Your task to perform on an android device: Go to Google maps Image 0: 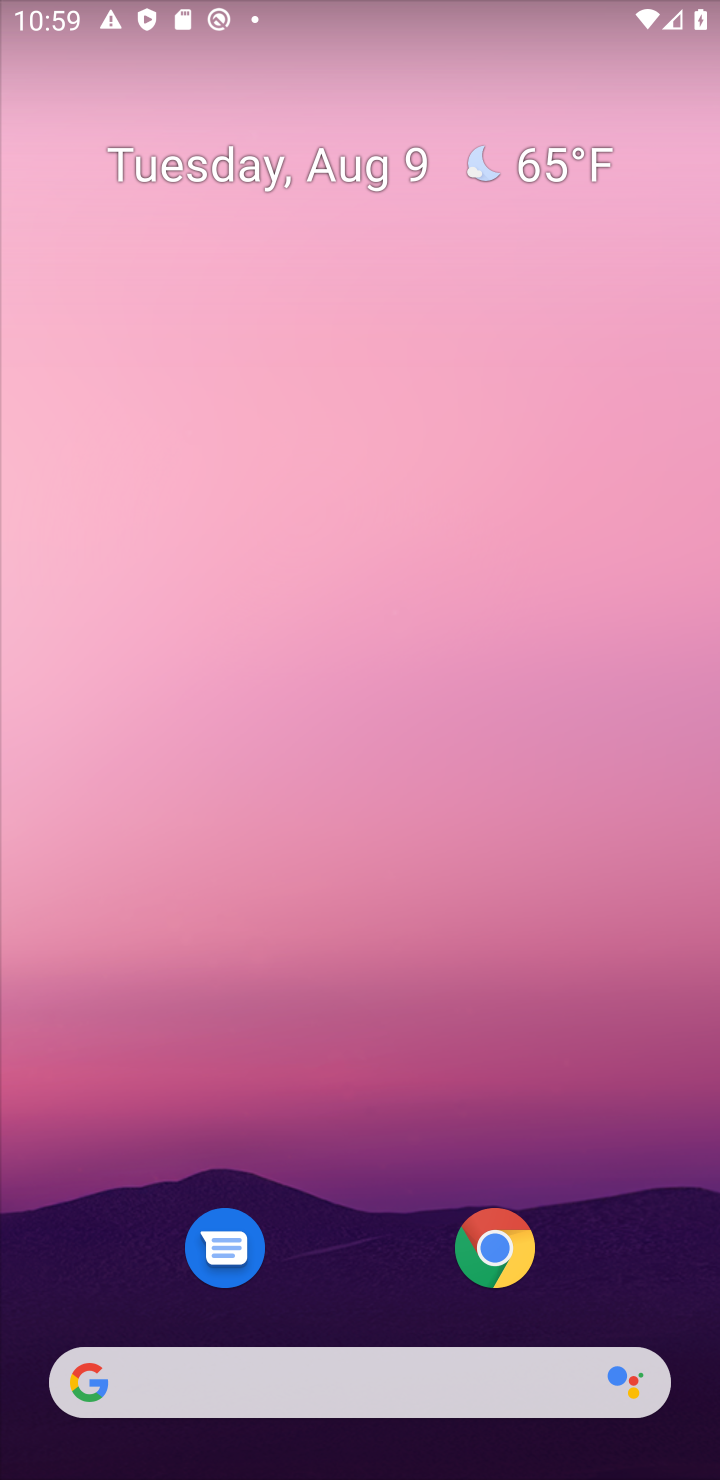
Step 0: drag from (450, 916) to (391, 83)
Your task to perform on an android device: Go to Google maps Image 1: 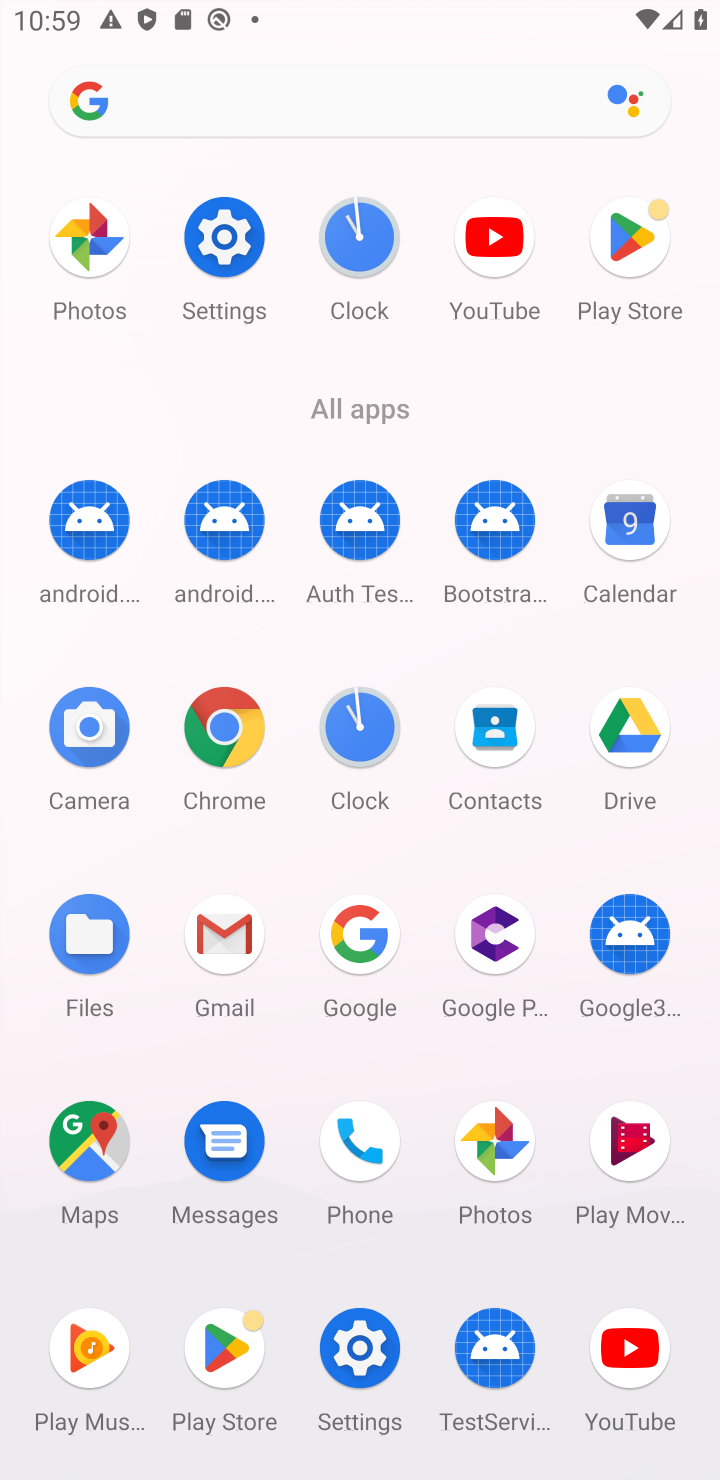
Step 1: click (91, 1141)
Your task to perform on an android device: Go to Google maps Image 2: 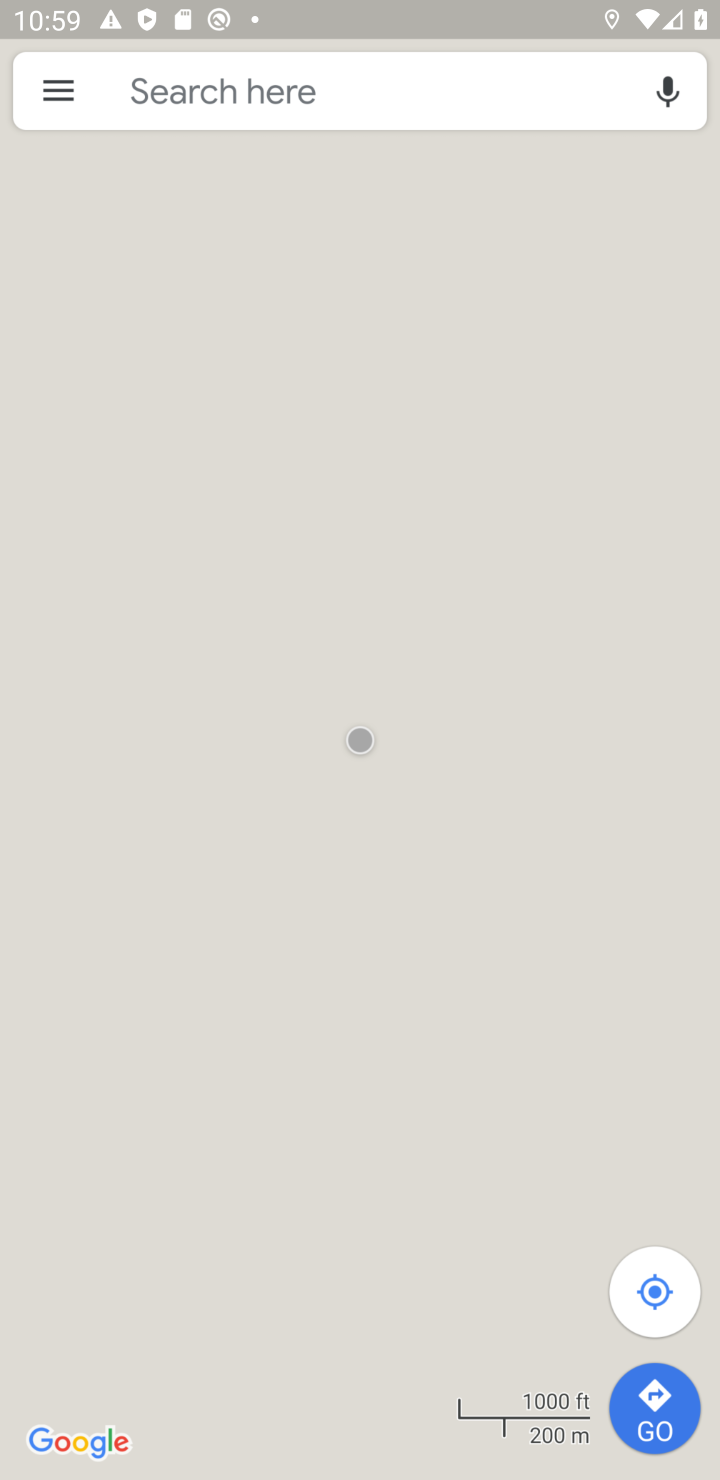
Step 2: task complete